Your task to perform on an android device: Go to ESPN.com Image 0: 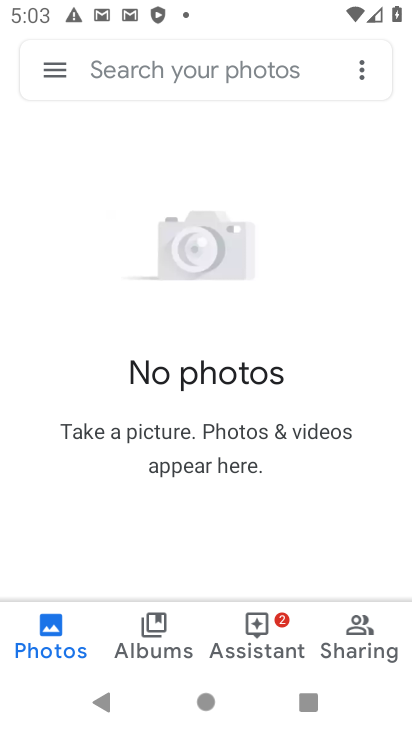
Step 0: press home button
Your task to perform on an android device: Go to ESPN.com Image 1: 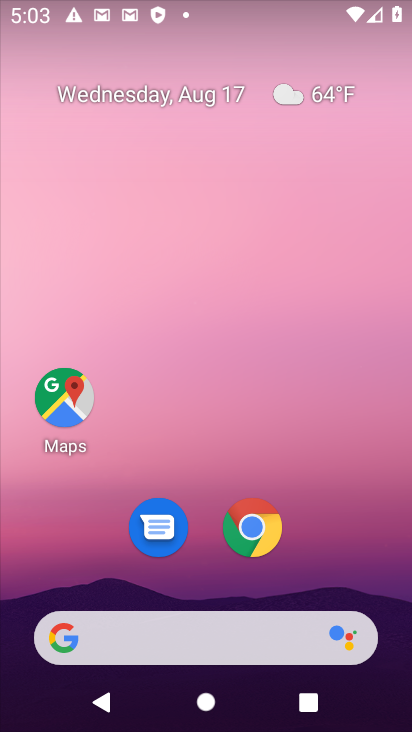
Step 1: click (237, 536)
Your task to perform on an android device: Go to ESPN.com Image 2: 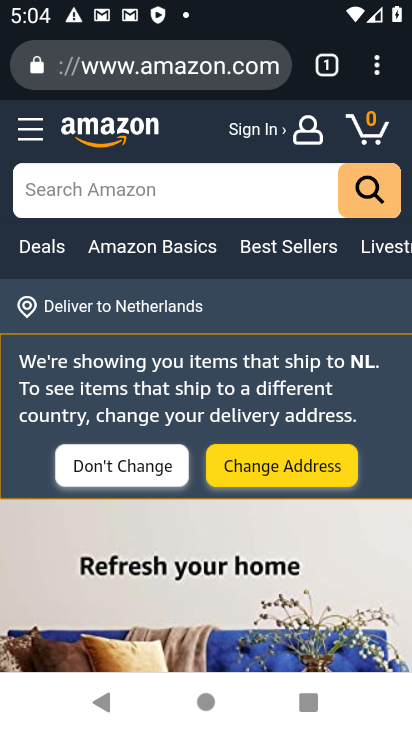
Step 2: click (337, 79)
Your task to perform on an android device: Go to ESPN.com Image 3: 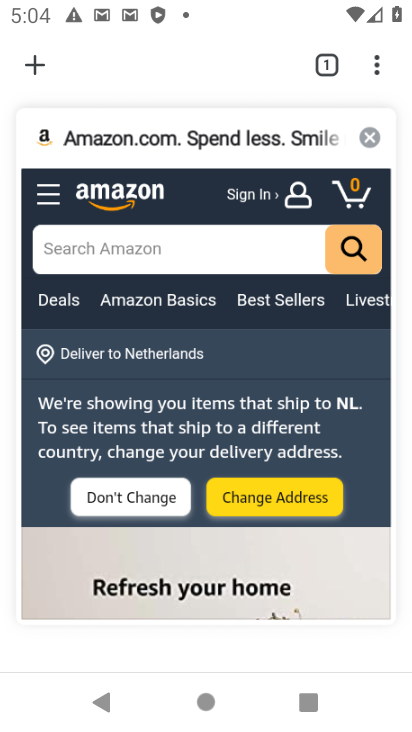
Step 3: click (358, 139)
Your task to perform on an android device: Go to ESPN.com Image 4: 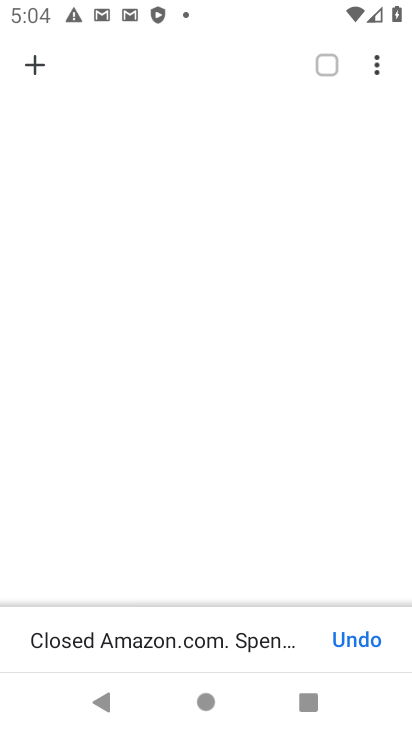
Step 4: click (26, 69)
Your task to perform on an android device: Go to ESPN.com Image 5: 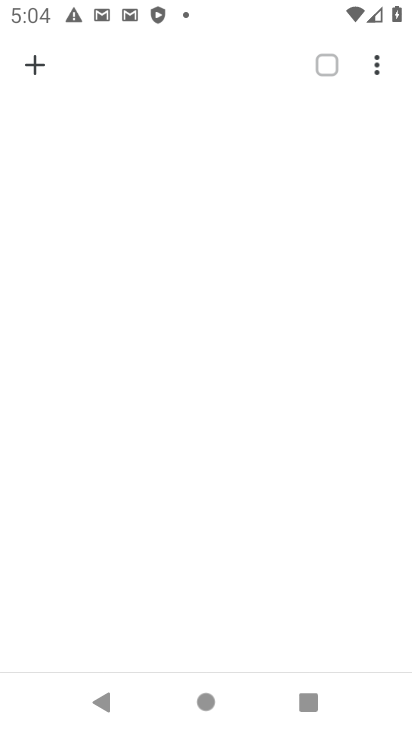
Step 5: click (23, 62)
Your task to perform on an android device: Go to ESPN.com Image 6: 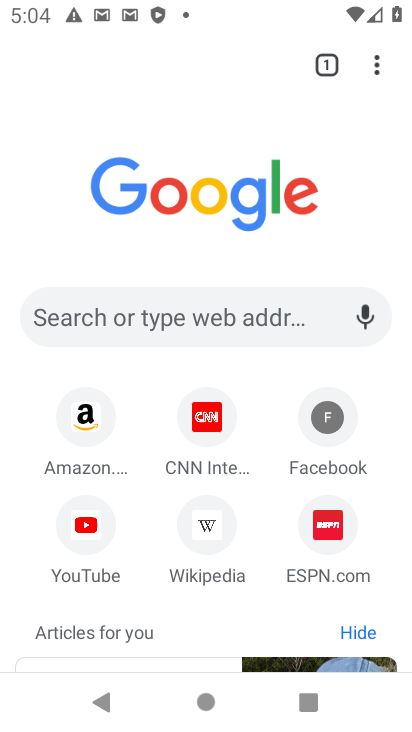
Step 6: click (313, 525)
Your task to perform on an android device: Go to ESPN.com Image 7: 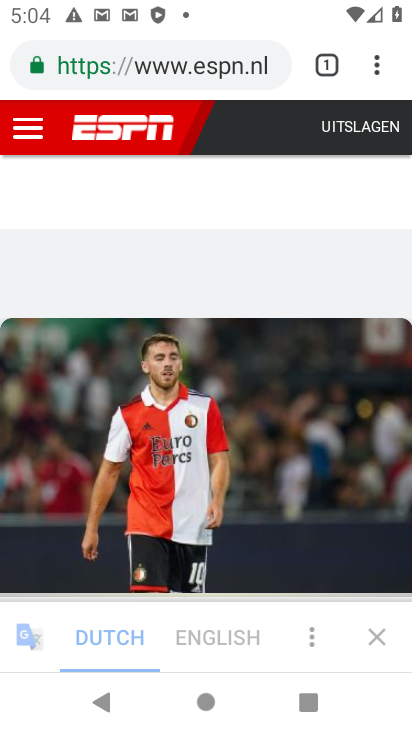
Step 7: task complete